Your task to perform on an android device: Go to Yahoo.com Image 0: 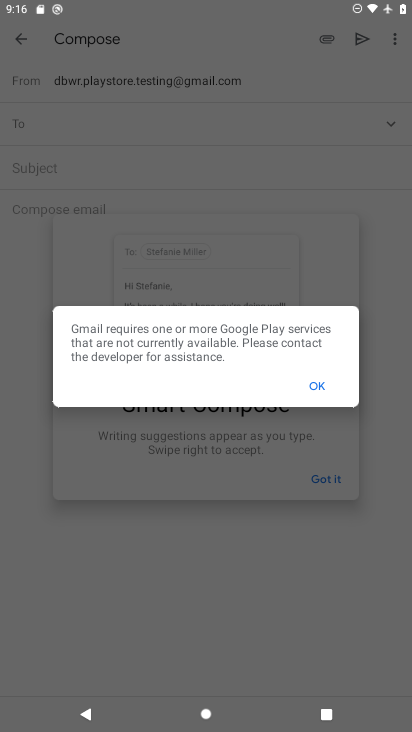
Step 0: press home button
Your task to perform on an android device: Go to Yahoo.com Image 1: 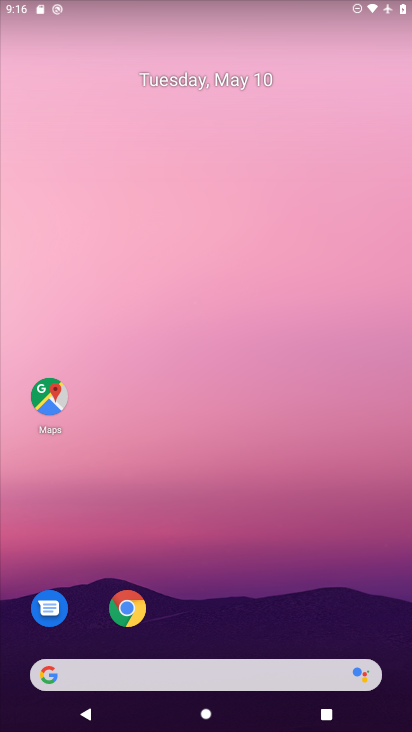
Step 1: drag from (238, 602) to (275, 229)
Your task to perform on an android device: Go to Yahoo.com Image 2: 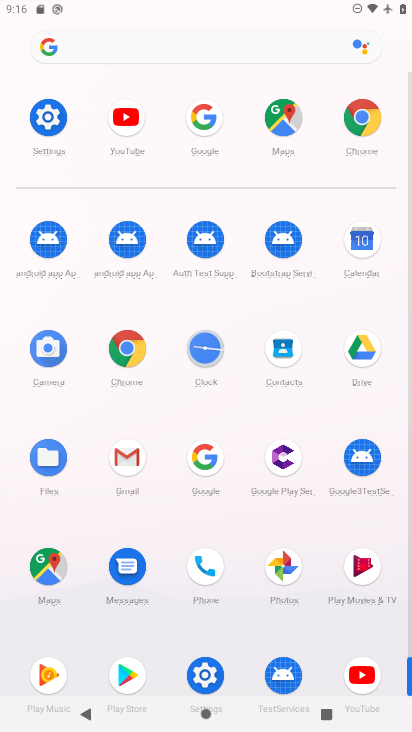
Step 2: click (127, 349)
Your task to perform on an android device: Go to Yahoo.com Image 3: 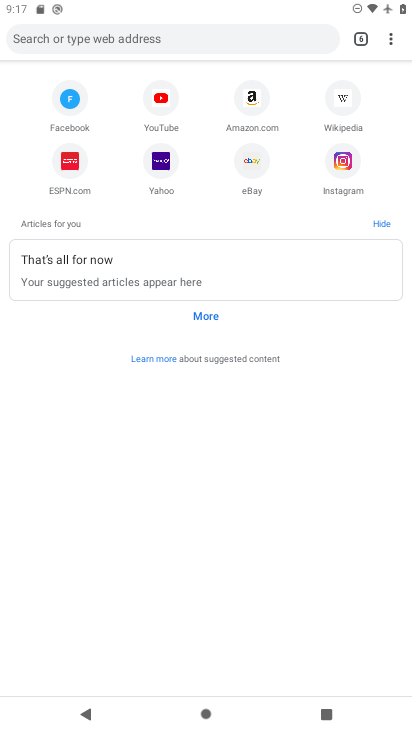
Step 3: click (156, 161)
Your task to perform on an android device: Go to Yahoo.com Image 4: 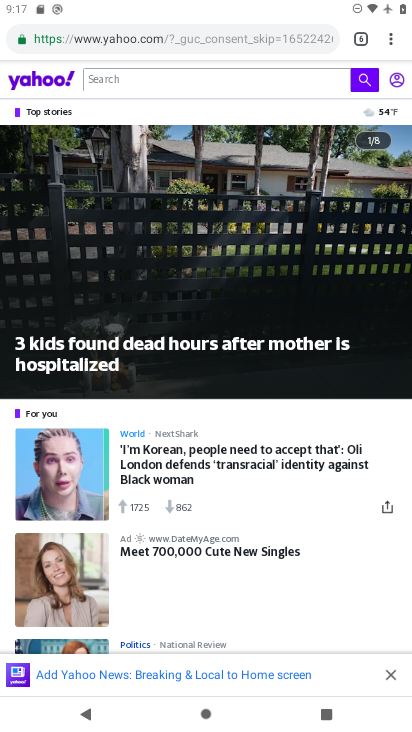
Step 4: task complete